Your task to perform on an android device: read, delete, or share a saved page in the chrome app Image 0: 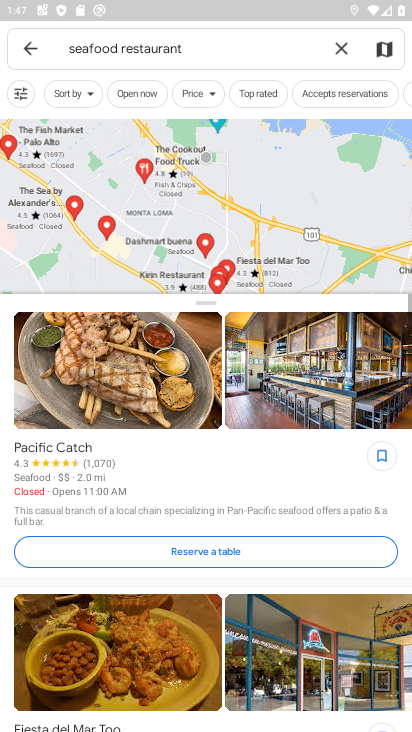
Step 0: drag from (228, 671) to (198, 374)
Your task to perform on an android device: read, delete, or share a saved page in the chrome app Image 1: 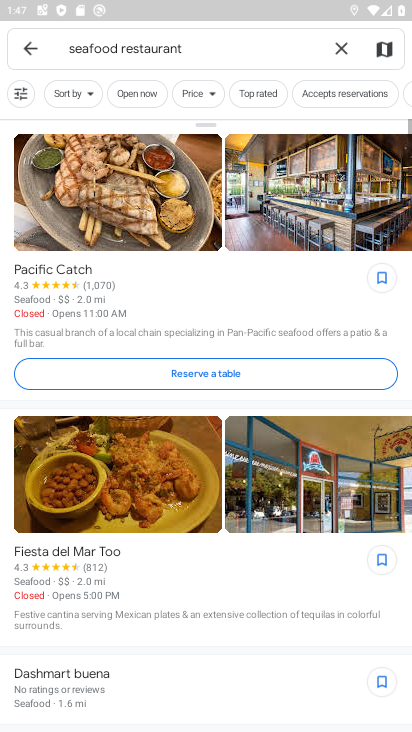
Step 1: press home button
Your task to perform on an android device: read, delete, or share a saved page in the chrome app Image 2: 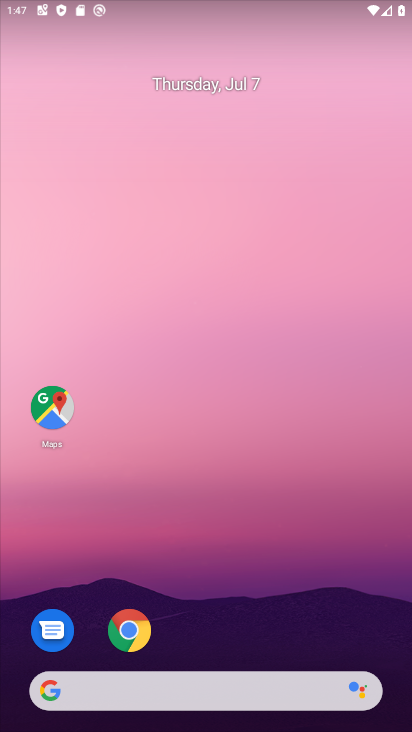
Step 2: drag from (210, 652) to (203, 146)
Your task to perform on an android device: read, delete, or share a saved page in the chrome app Image 3: 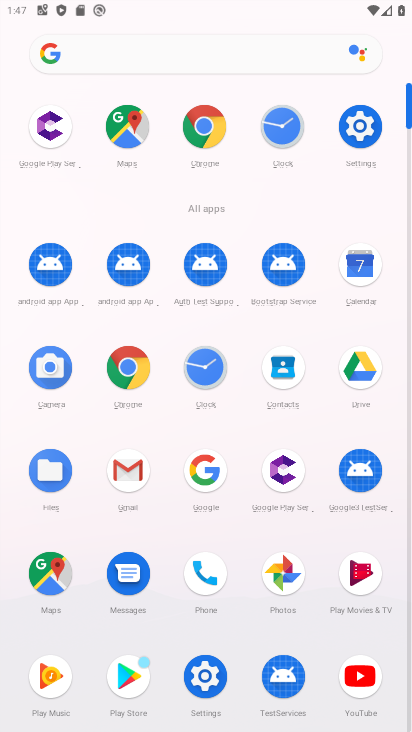
Step 3: click (214, 121)
Your task to perform on an android device: read, delete, or share a saved page in the chrome app Image 4: 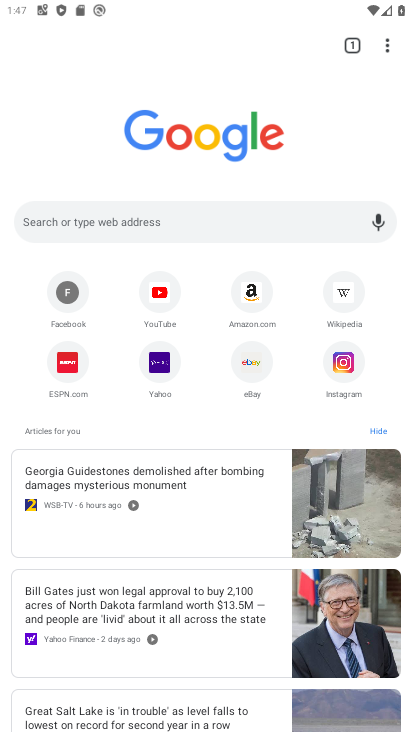
Step 4: task complete